Your task to perform on an android device: Open calendar and show me the first week of next month Image 0: 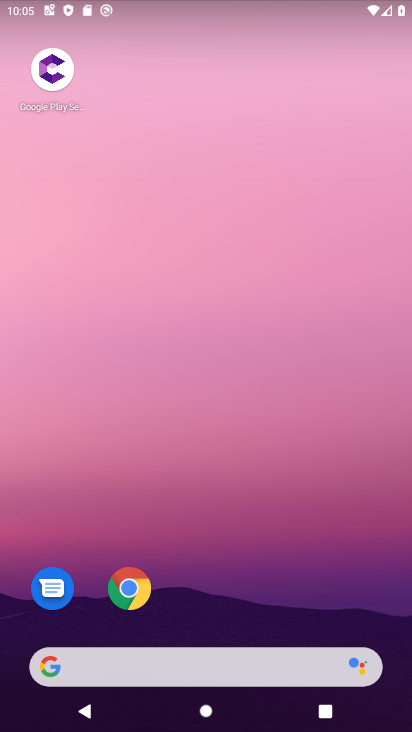
Step 0: drag from (244, 614) to (277, 200)
Your task to perform on an android device: Open calendar and show me the first week of next month Image 1: 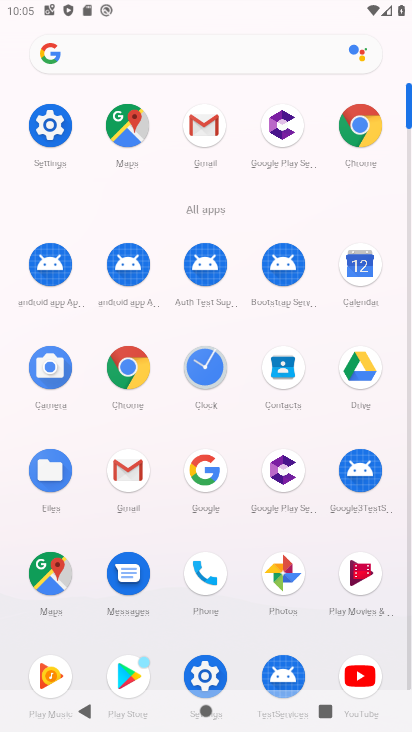
Step 1: click (368, 283)
Your task to perform on an android device: Open calendar and show me the first week of next month Image 2: 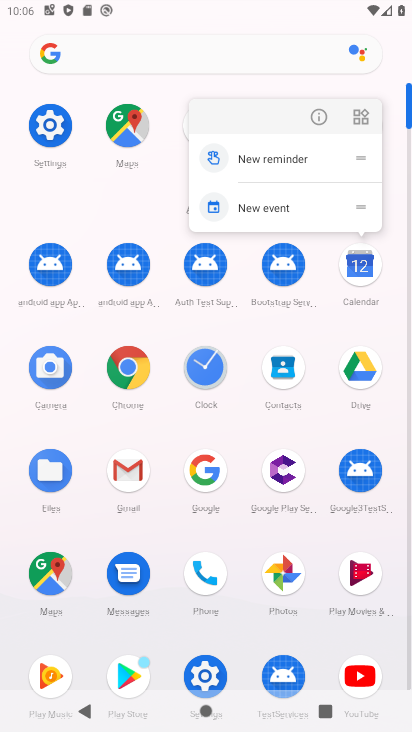
Step 2: click (362, 283)
Your task to perform on an android device: Open calendar and show me the first week of next month Image 3: 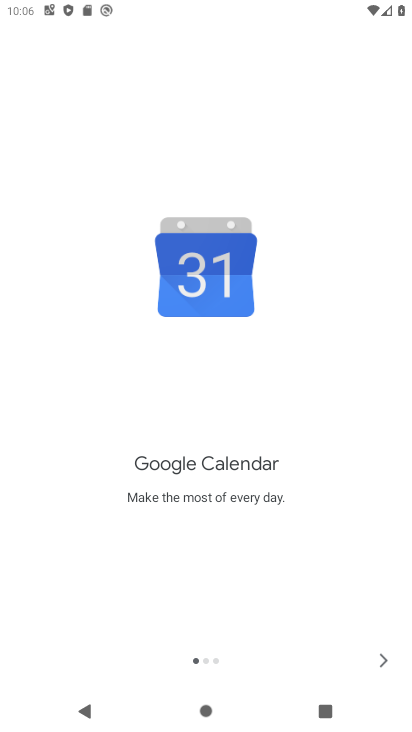
Step 3: click (374, 649)
Your task to perform on an android device: Open calendar and show me the first week of next month Image 4: 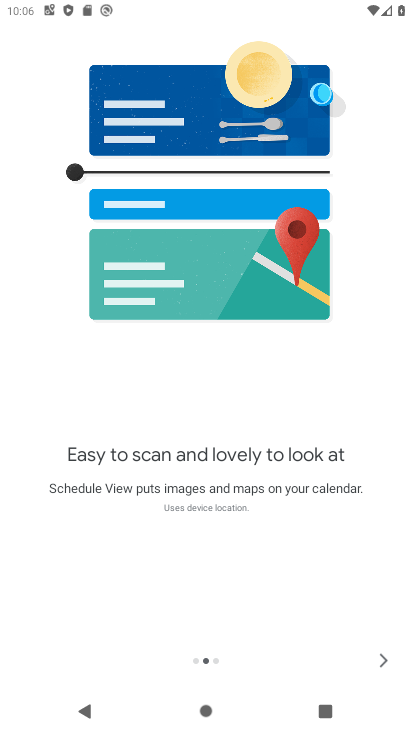
Step 4: click (366, 655)
Your task to perform on an android device: Open calendar and show me the first week of next month Image 5: 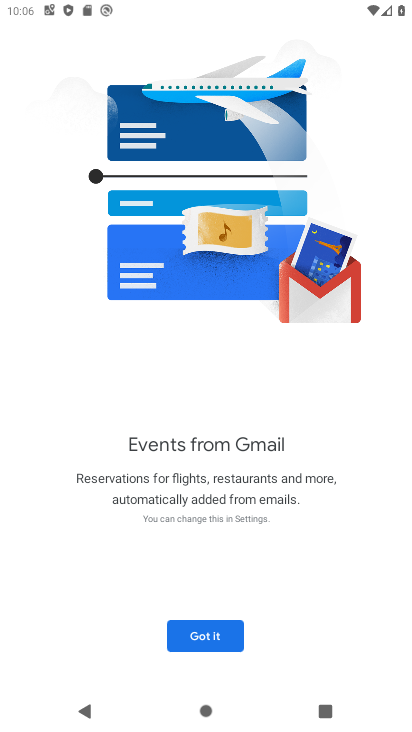
Step 5: click (227, 635)
Your task to perform on an android device: Open calendar and show me the first week of next month Image 6: 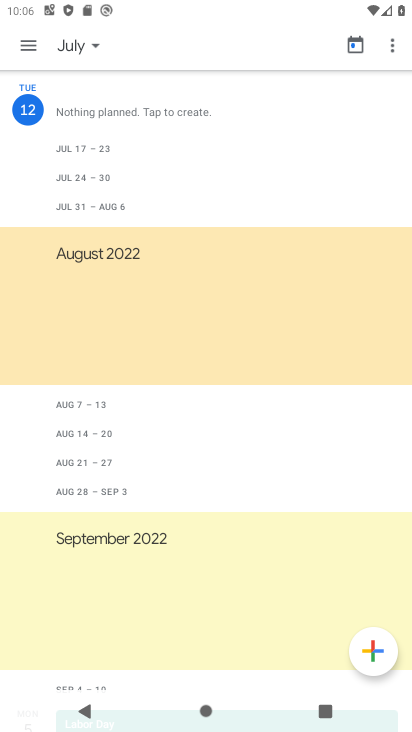
Step 6: click (73, 45)
Your task to perform on an android device: Open calendar and show me the first week of next month Image 7: 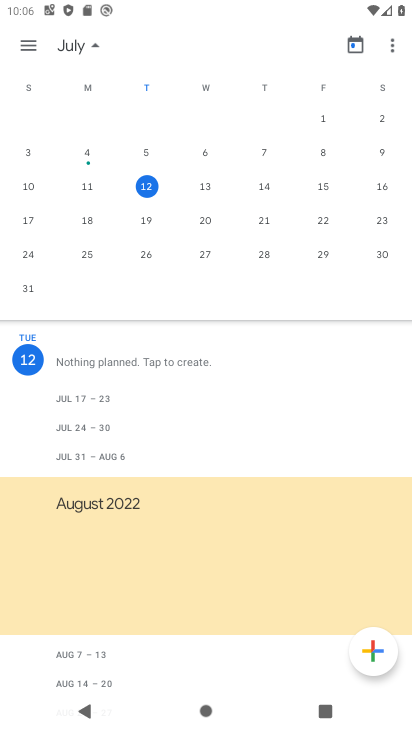
Step 7: drag from (330, 156) to (5, 138)
Your task to perform on an android device: Open calendar and show me the first week of next month Image 8: 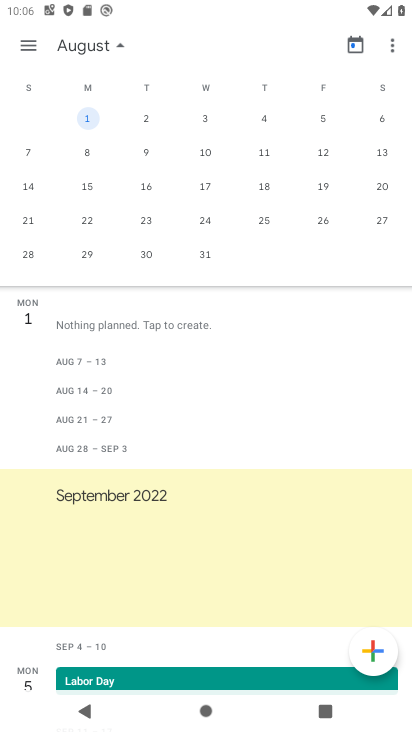
Step 8: click (21, 145)
Your task to perform on an android device: Open calendar and show me the first week of next month Image 9: 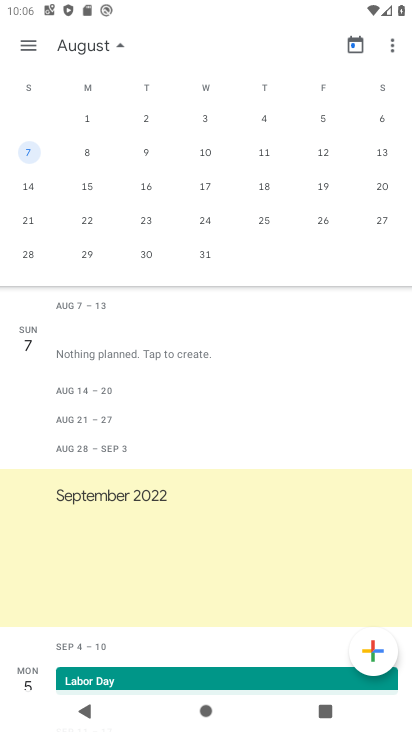
Step 9: click (27, 38)
Your task to perform on an android device: Open calendar and show me the first week of next month Image 10: 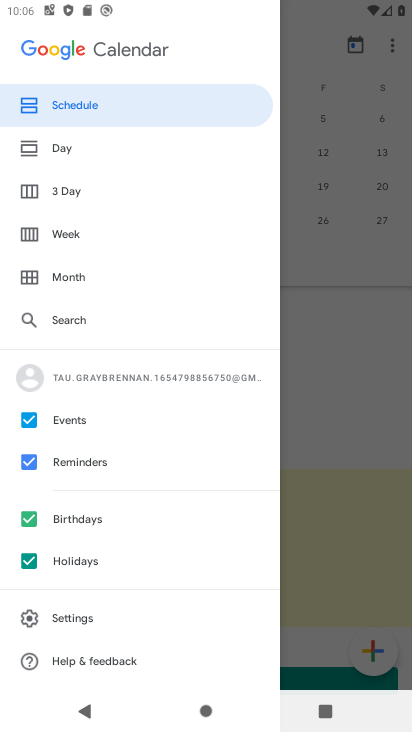
Step 10: click (106, 229)
Your task to perform on an android device: Open calendar and show me the first week of next month Image 11: 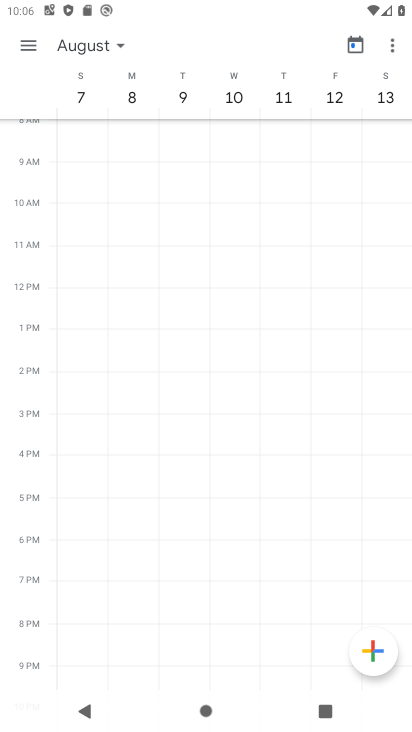
Step 11: task complete